Your task to perform on an android device: toggle location history Image 0: 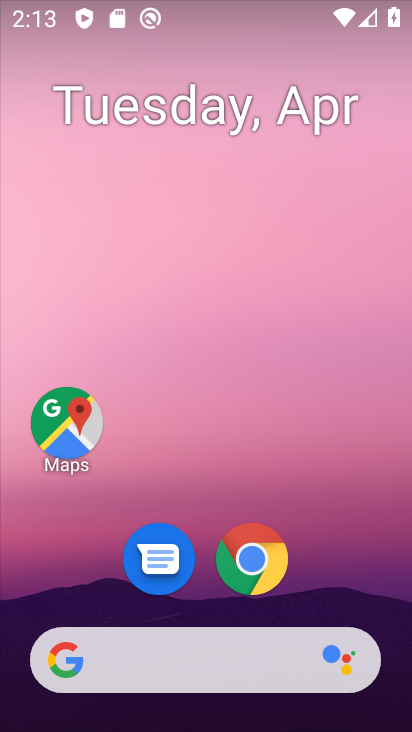
Step 0: drag from (161, 445) to (226, 88)
Your task to perform on an android device: toggle location history Image 1: 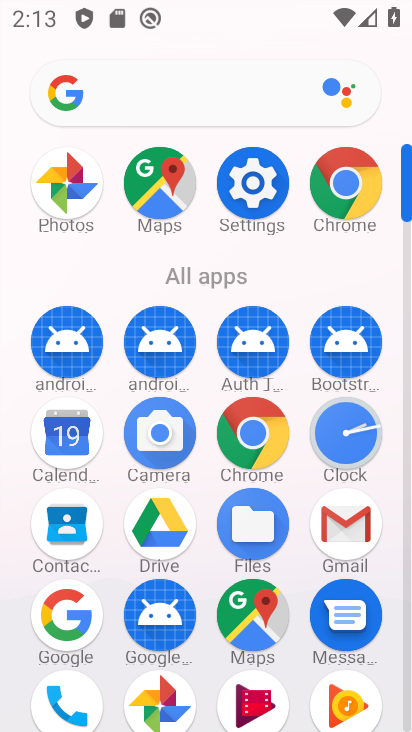
Step 1: click (247, 193)
Your task to perform on an android device: toggle location history Image 2: 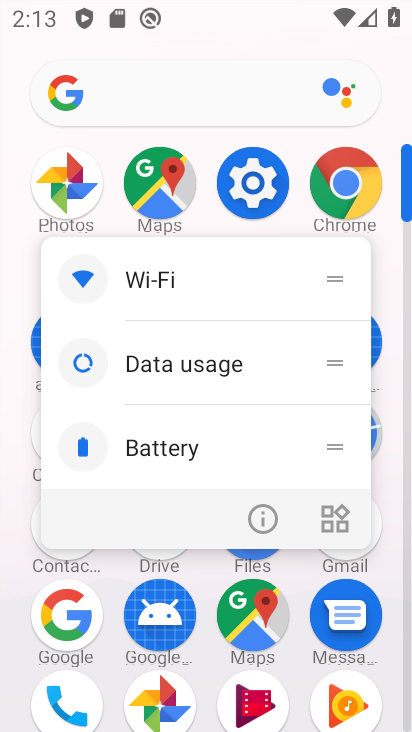
Step 2: click (270, 195)
Your task to perform on an android device: toggle location history Image 3: 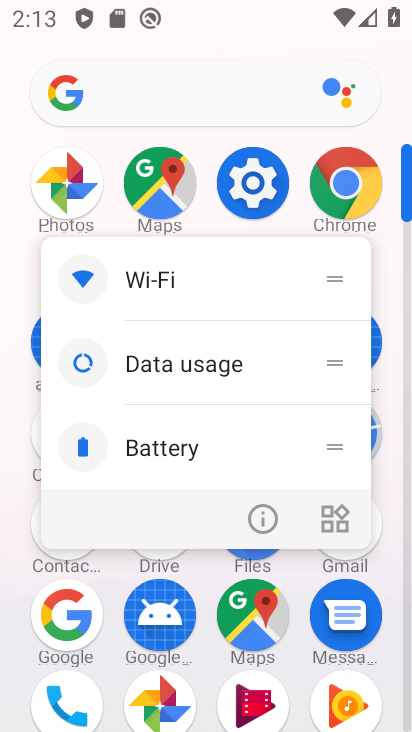
Step 3: click (239, 187)
Your task to perform on an android device: toggle location history Image 4: 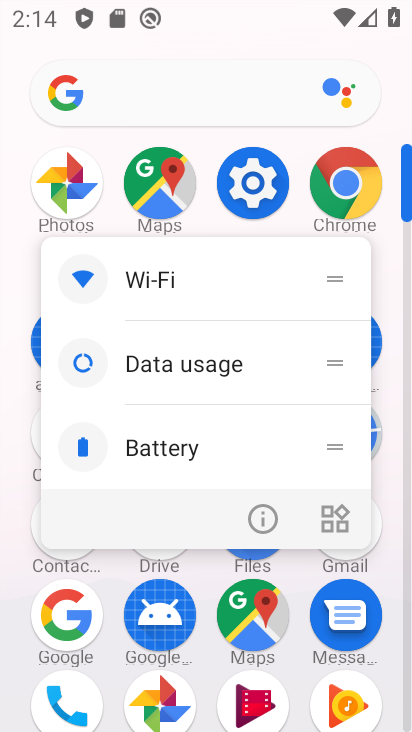
Step 4: click (263, 189)
Your task to perform on an android device: toggle location history Image 5: 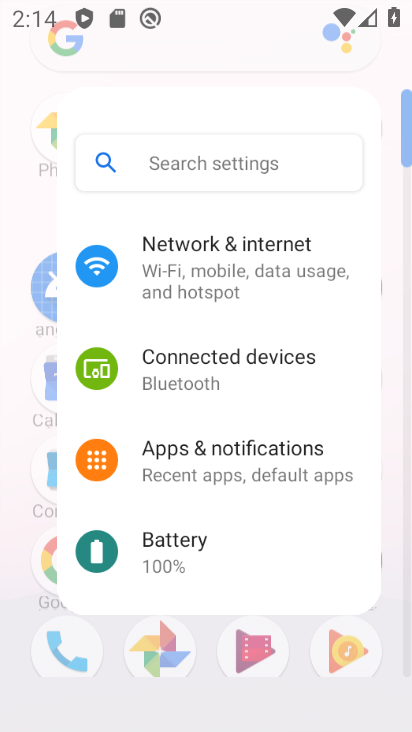
Step 5: click (263, 193)
Your task to perform on an android device: toggle location history Image 6: 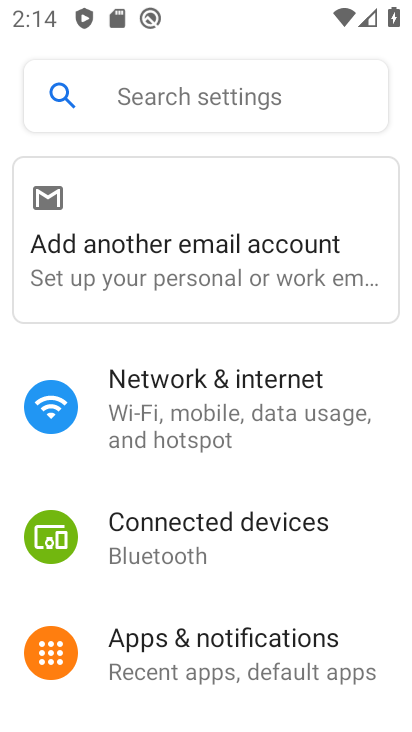
Step 6: press back button
Your task to perform on an android device: toggle location history Image 7: 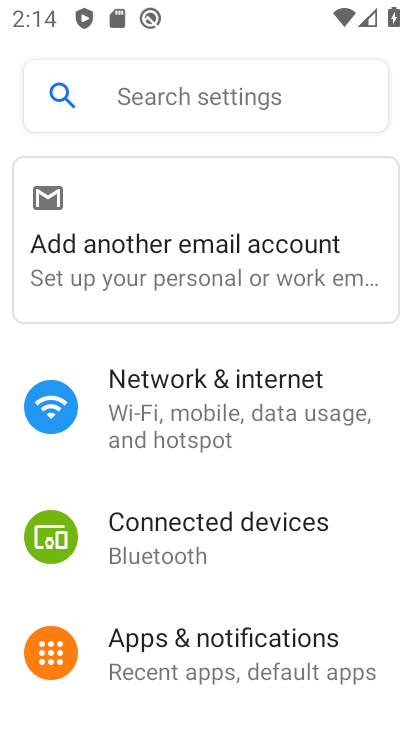
Step 7: drag from (204, 648) to (318, 363)
Your task to perform on an android device: toggle location history Image 8: 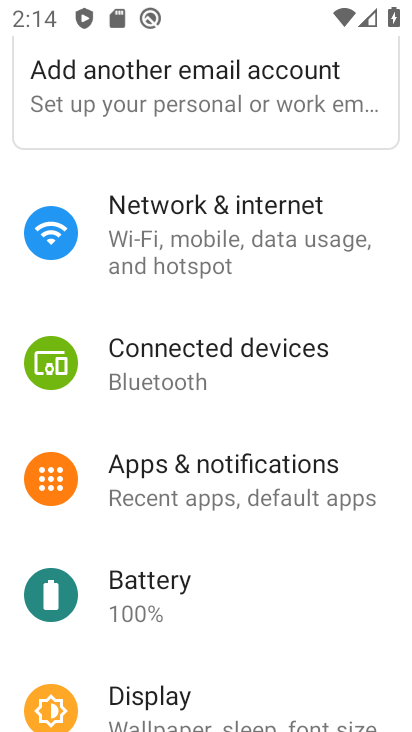
Step 8: drag from (202, 657) to (375, 195)
Your task to perform on an android device: toggle location history Image 9: 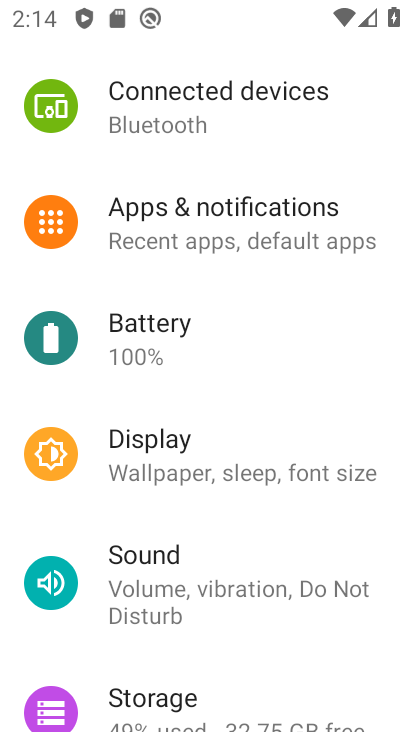
Step 9: drag from (189, 610) to (330, 258)
Your task to perform on an android device: toggle location history Image 10: 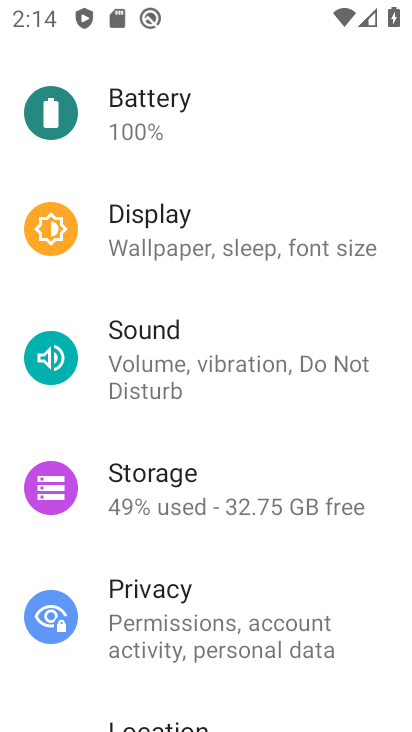
Step 10: drag from (199, 589) to (327, 360)
Your task to perform on an android device: toggle location history Image 11: 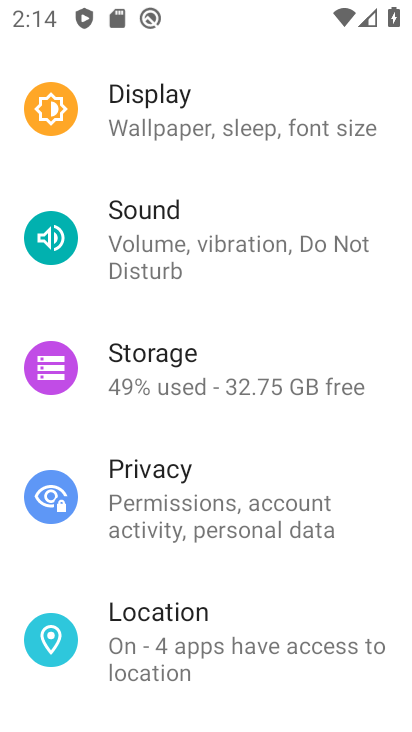
Step 11: click (183, 632)
Your task to perform on an android device: toggle location history Image 12: 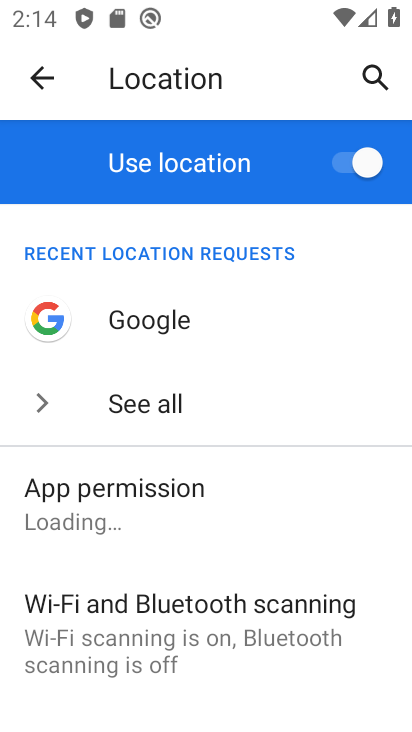
Step 12: drag from (228, 532) to (344, 348)
Your task to perform on an android device: toggle location history Image 13: 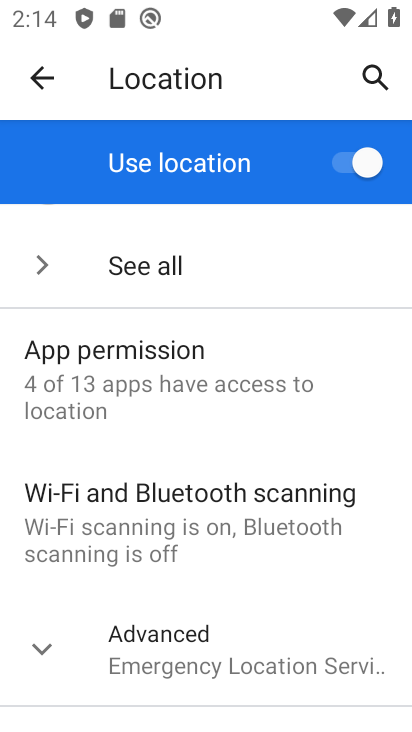
Step 13: click (168, 647)
Your task to perform on an android device: toggle location history Image 14: 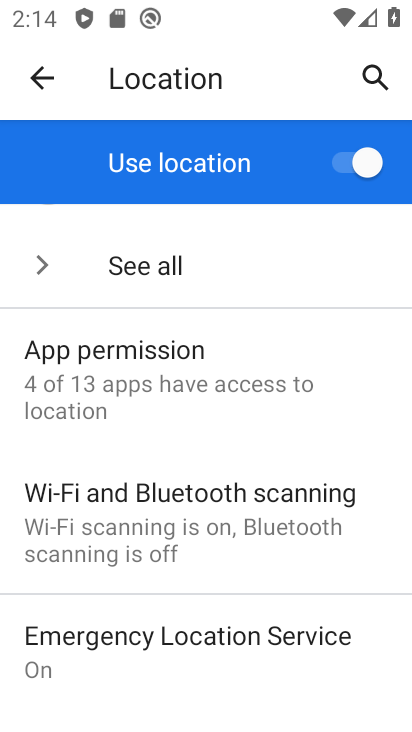
Step 14: drag from (175, 641) to (344, 304)
Your task to perform on an android device: toggle location history Image 15: 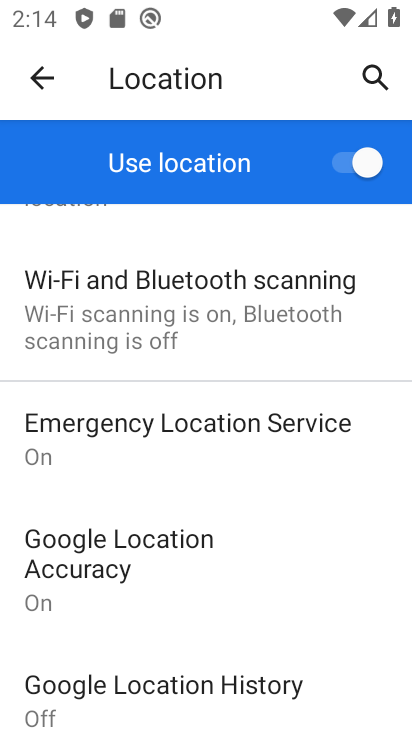
Step 15: drag from (190, 564) to (280, 360)
Your task to perform on an android device: toggle location history Image 16: 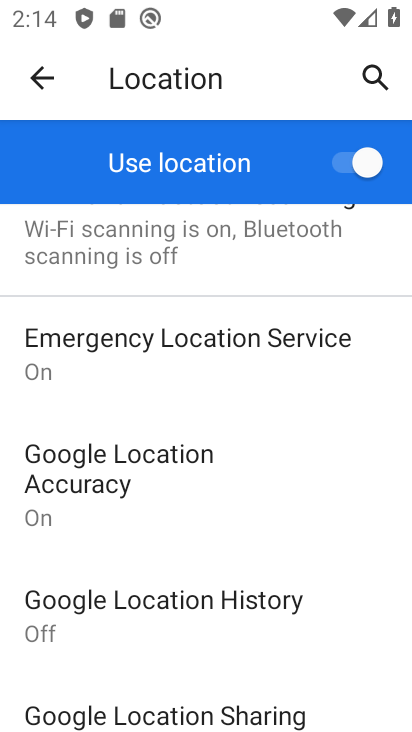
Step 16: click (116, 620)
Your task to perform on an android device: toggle location history Image 17: 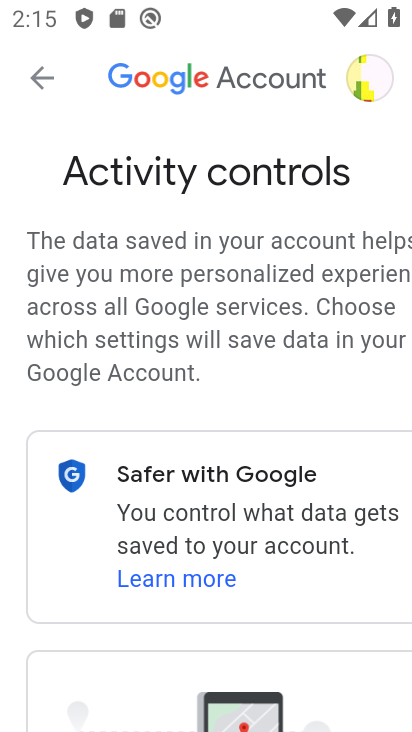
Step 17: drag from (175, 647) to (366, 189)
Your task to perform on an android device: toggle location history Image 18: 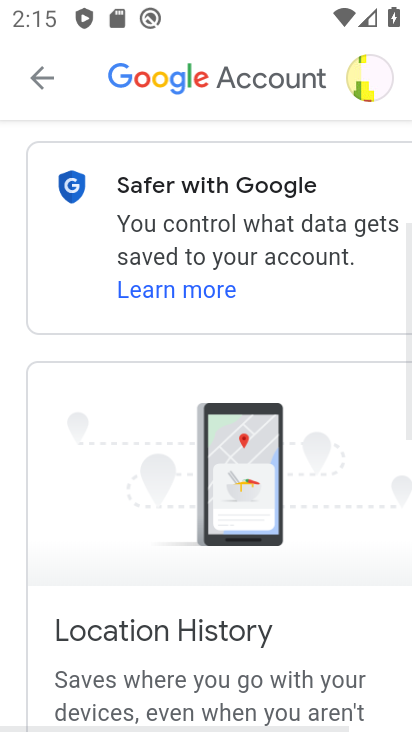
Step 18: drag from (167, 613) to (305, 208)
Your task to perform on an android device: toggle location history Image 19: 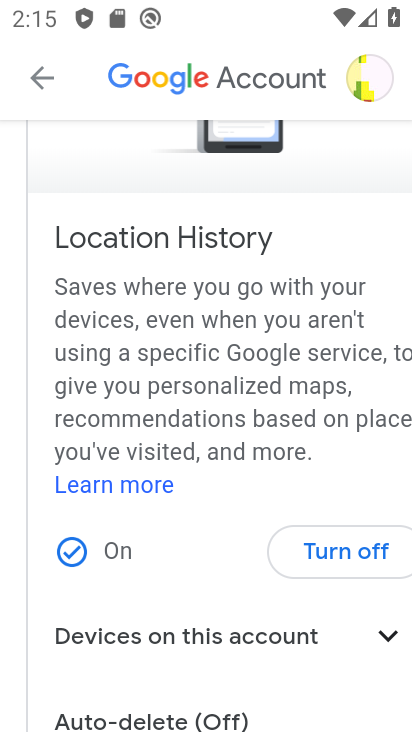
Step 19: click (352, 548)
Your task to perform on an android device: toggle location history Image 20: 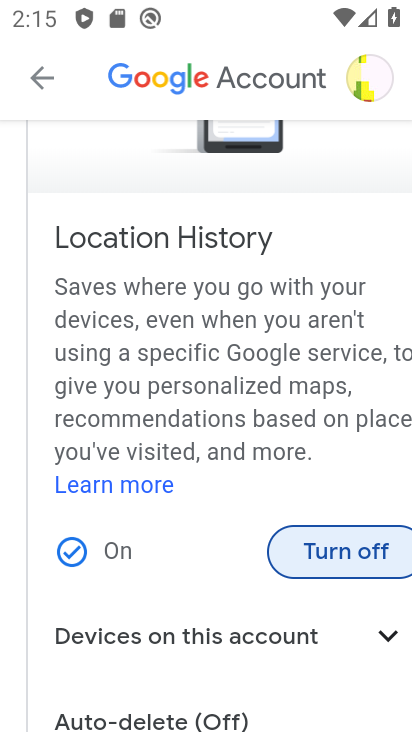
Step 20: click (335, 556)
Your task to perform on an android device: toggle location history Image 21: 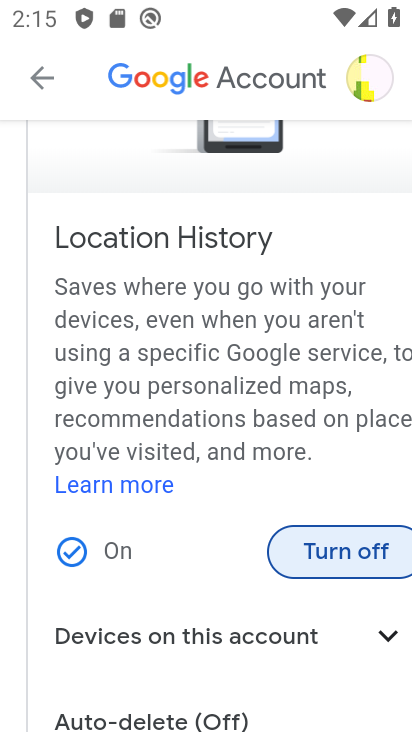
Step 21: click (299, 569)
Your task to perform on an android device: toggle location history Image 22: 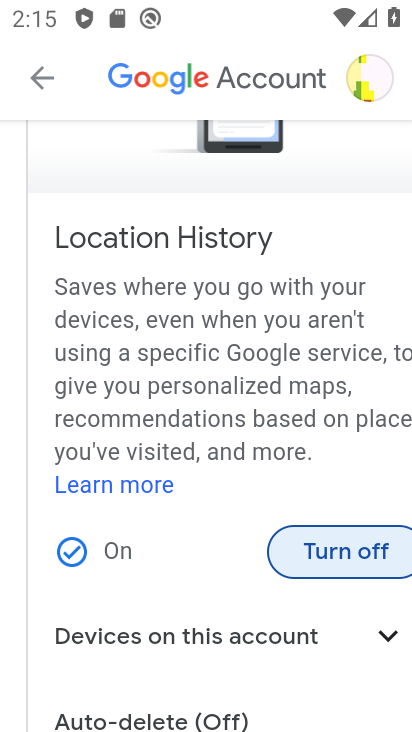
Step 22: click (352, 557)
Your task to perform on an android device: toggle location history Image 23: 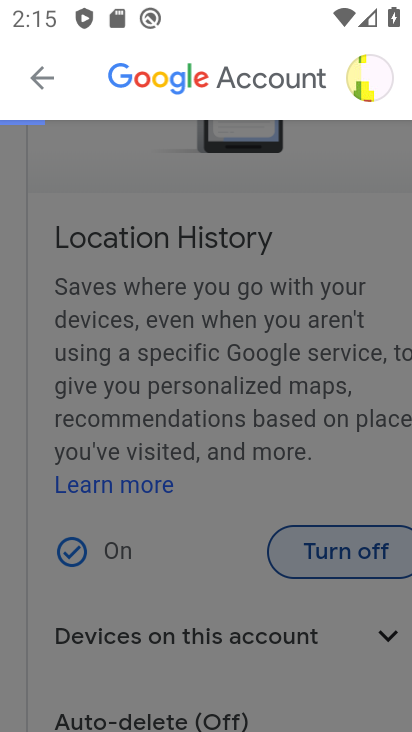
Step 23: click (352, 557)
Your task to perform on an android device: toggle location history Image 24: 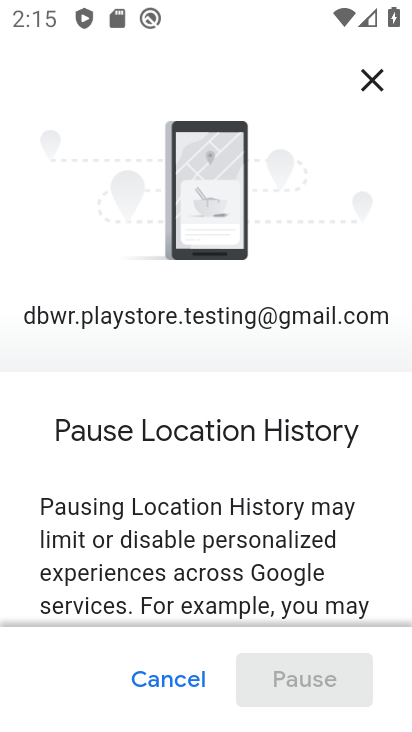
Step 24: drag from (175, 583) to (374, 153)
Your task to perform on an android device: toggle location history Image 25: 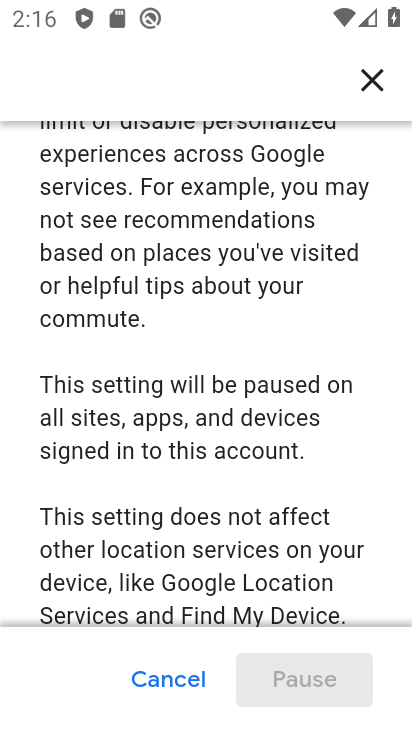
Step 25: drag from (156, 522) to (387, 138)
Your task to perform on an android device: toggle location history Image 26: 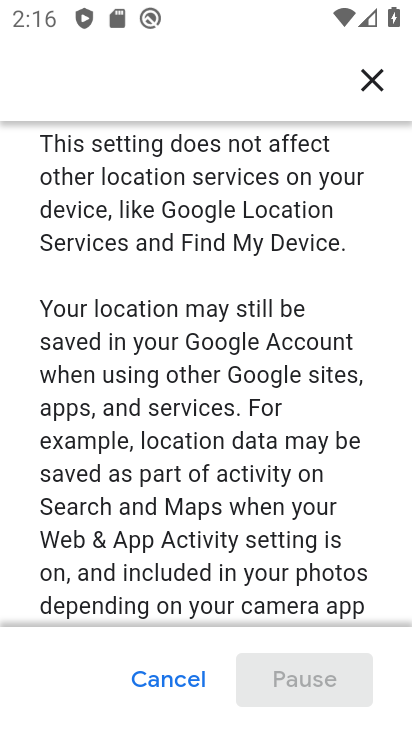
Step 26: drag from (227, 573) to (390, 122)
Your task to perform on an android device: toggle location history Image 27: 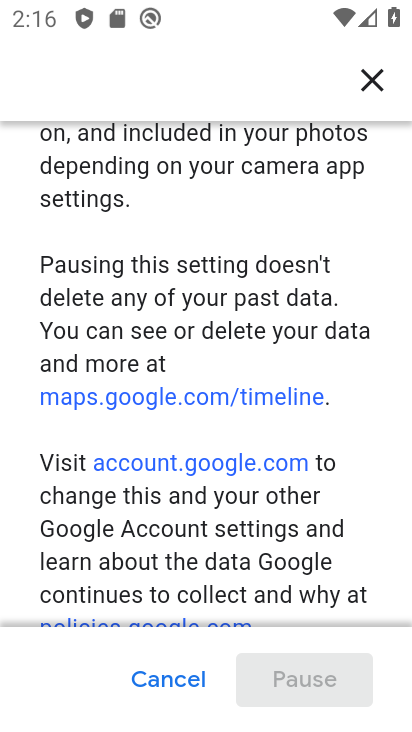
Step 27: drag from (139, 561) to (360, 185)
Your task to perform on an android device: toggle location history Image 28: 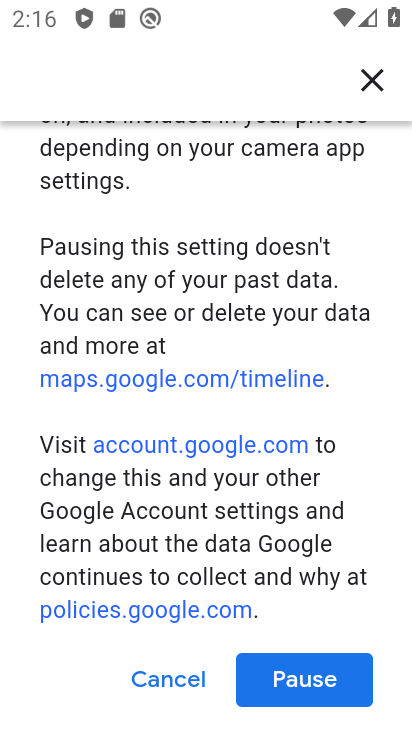
Step 28: click (283, 674)
Your task to perform on an android device: toggle location history Image 29: 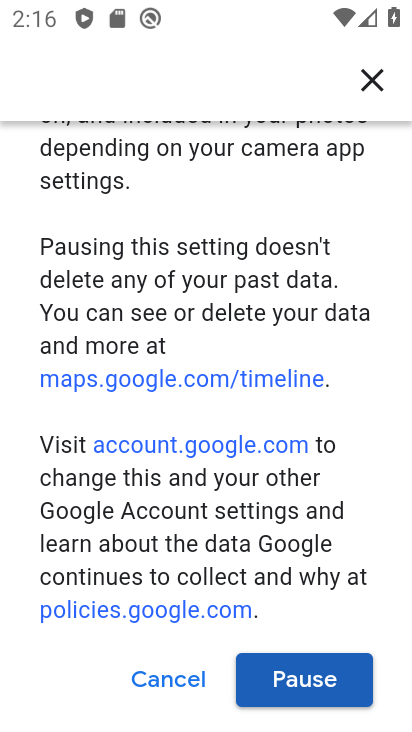
Step 29: click (290, 681)
Your task to perform on an android device: toggle location history Image 30: 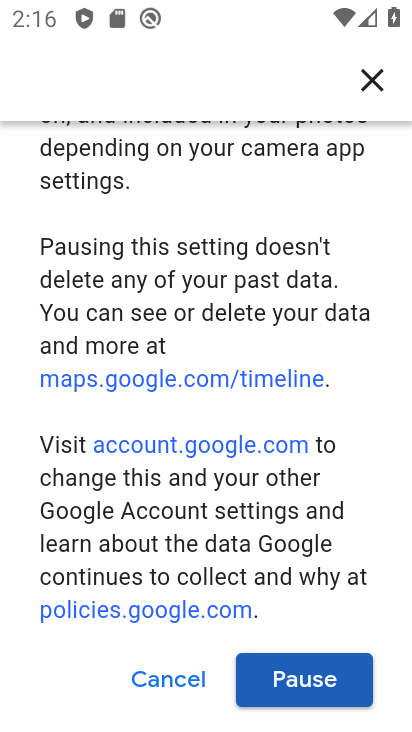
Step 30: click (303, 687)
Your task to perform on an android device: toggle location history Image 31: 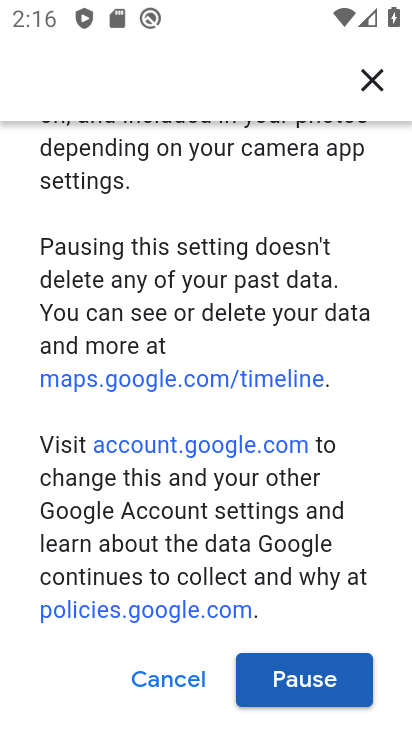
Step 31: click (328, 670)
Your task to perform on an android device: toggle location history Image 32: 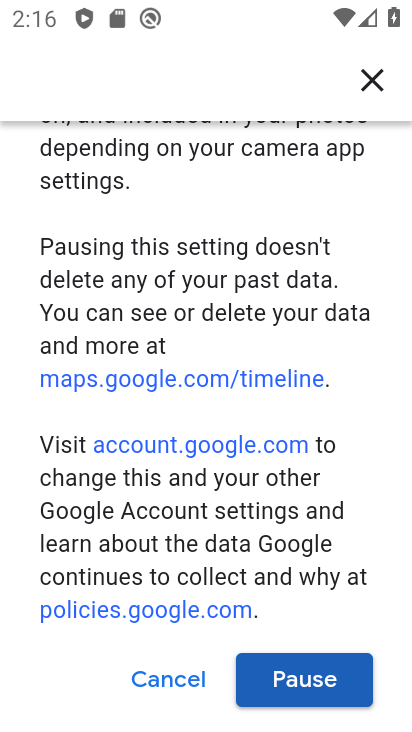
Step 32: click (315, 679)
Your task to perform on an android device: toggle location history Image 33: 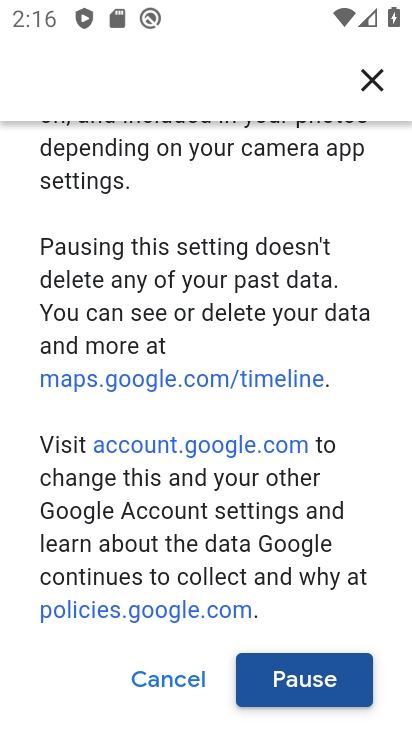
Step 33: click (314, 678)
Your task to perform on an android device: toggle location history Image 34: 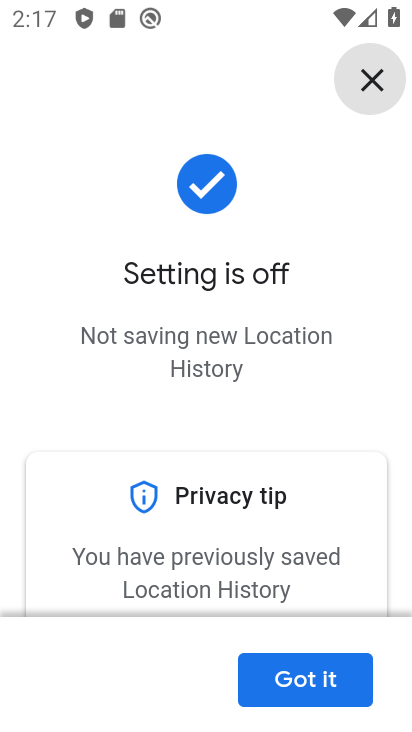
Step 34: click (314, 696)
Your task to perform on an android device: toggle location history Image 35: 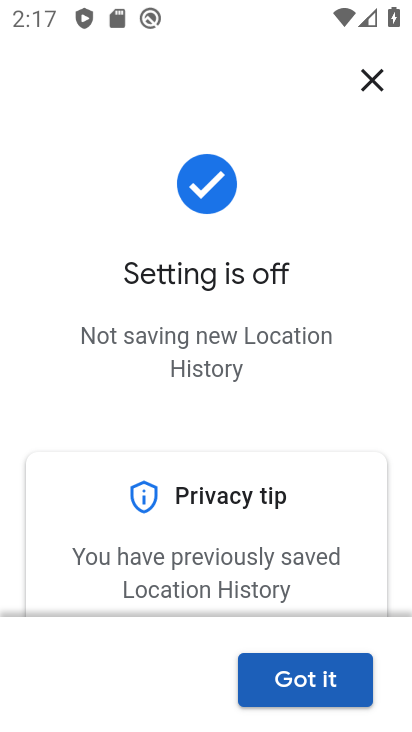
Step 35: task complete